Your task to perform on an android device: turn off wifi Image 0: 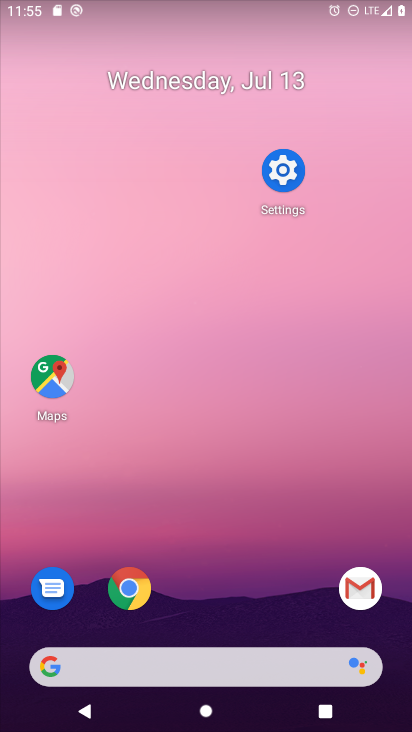
Step 0: click (281, 172)
Your task to perform on an android device: turn off wifi Image 1: 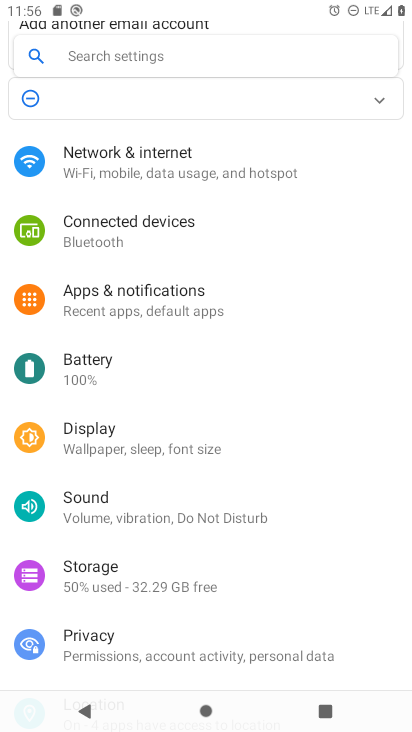
Step 1: click (234, 161)
Your task to perform on an android device: turn off wifi Image 2: 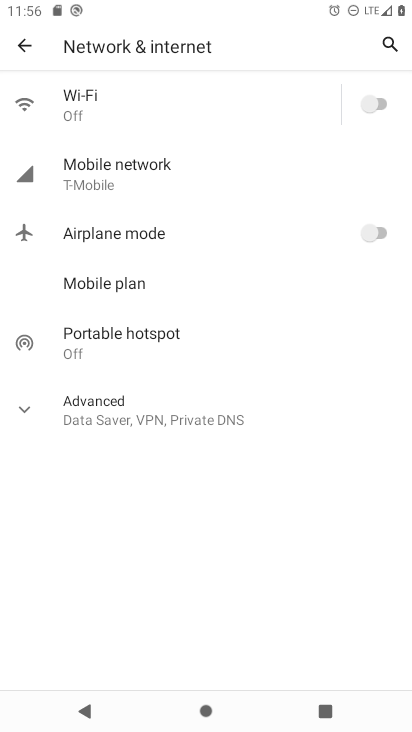
Step 2: click (147, 88)
Your task to perform on an android device: turn off wifi Image 3: 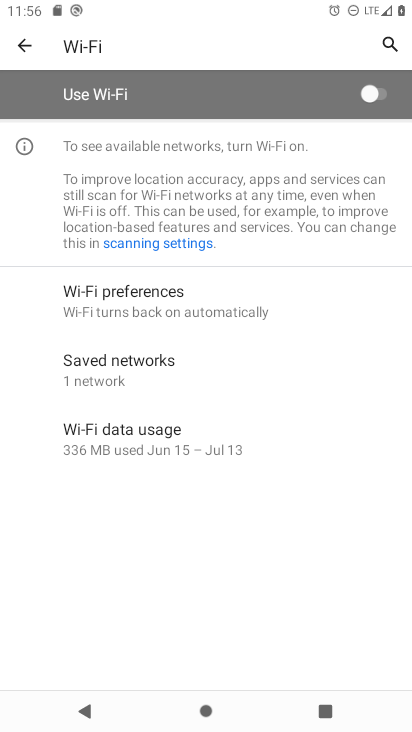
Step 3: click (376, 97)
Your task to perform on an android device: turn off wifi Image 4: 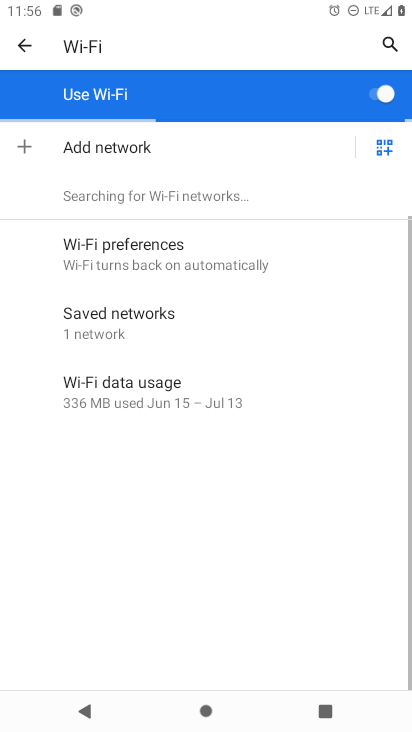
Step 4: click (376, 97)
Your task to perform on an android device: turn off wifi Image 5: 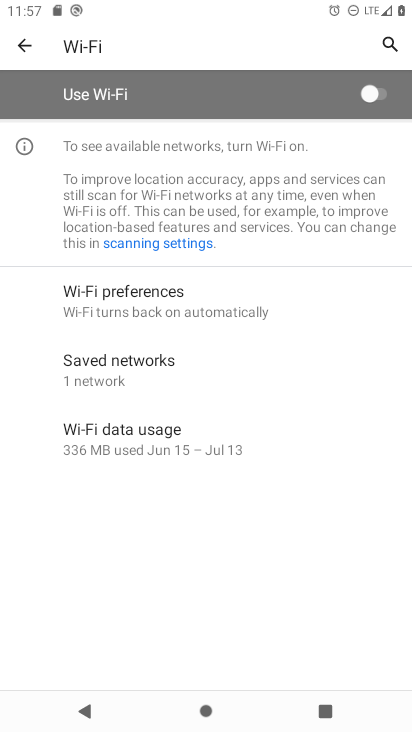
Step 5: task complete